Your task to perform on an android device: Open Reddit.com Image 0: 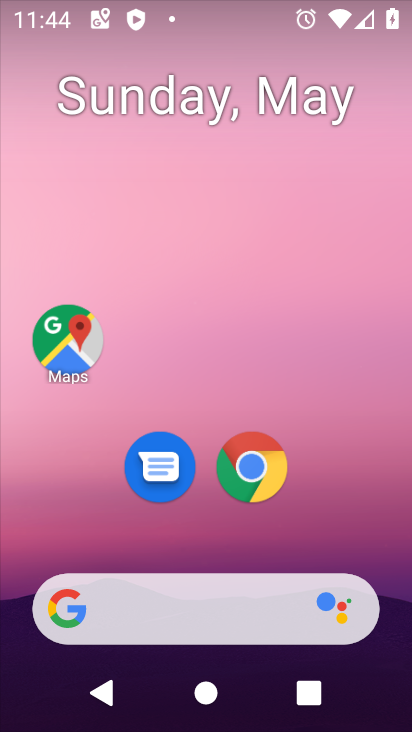
Step 0: click (249, 475)
Your task to perform on an android device: Open Reddit.com Image 1: 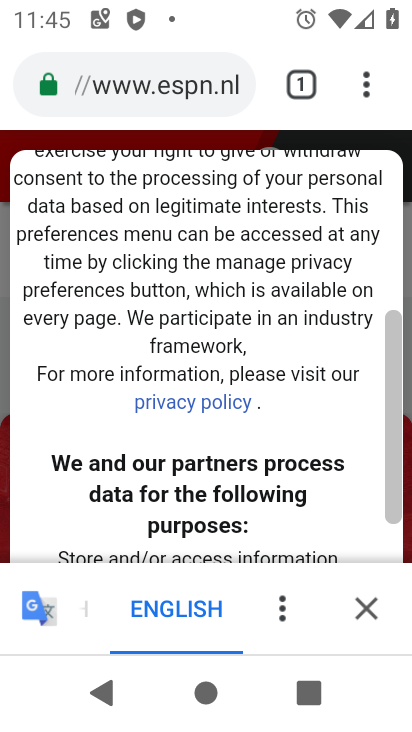
Step 1: click (121, 89)
Your task to perform on an android device: Open Reddit.com Image 2: 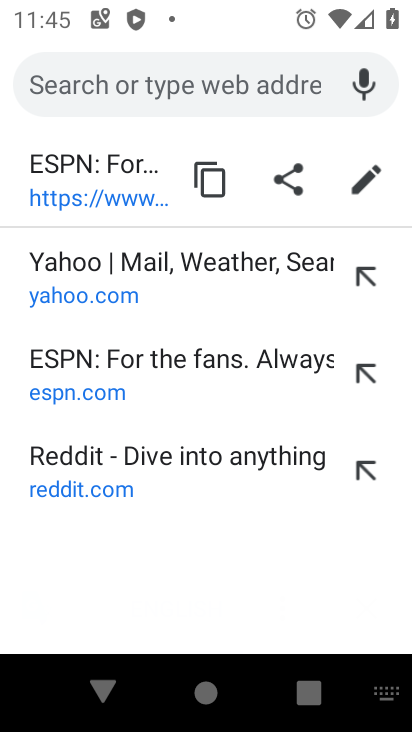
Step 2: click (72, 480)
Your task to perform on an android device: Open Reddit.com Image 3: 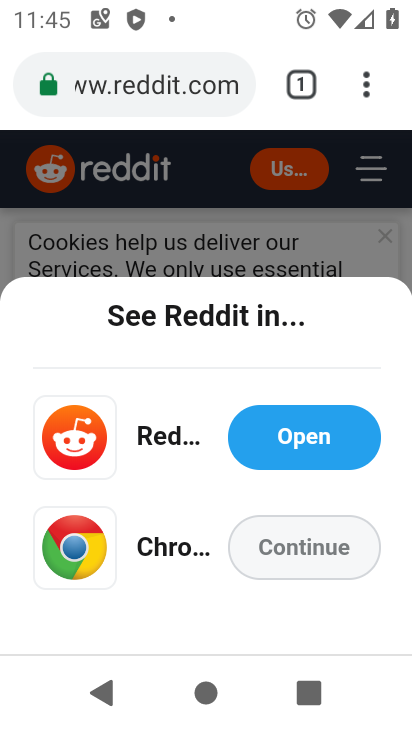
Step 3: task complete